Your task to perform on an android device: Open eBay Image 0: 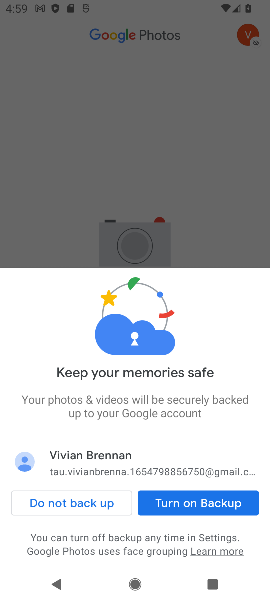
Step 0: press home button
Your task to perform on an android device: Open eBay Image 1: 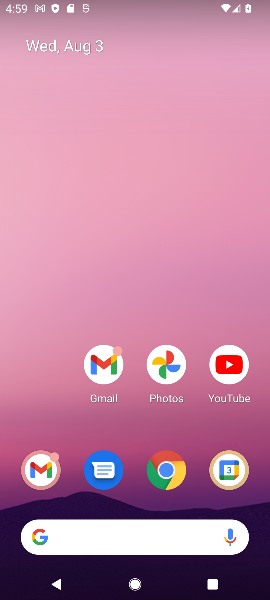
Step 1: drag from (207, 430) to (203, 11)
Your task to perform on an android device: Open eBay Image 2: 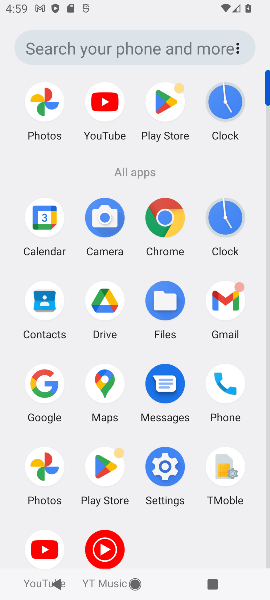
Step 2: click (165, 218)
Your task to perform on an android device: Open eBay Image 3: 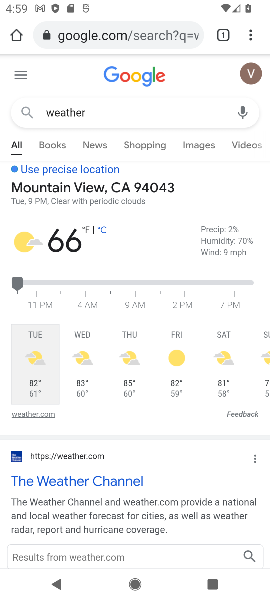
Step 3: click (134, 27)
Your task to perform on an android device: Open eBay Image 4: 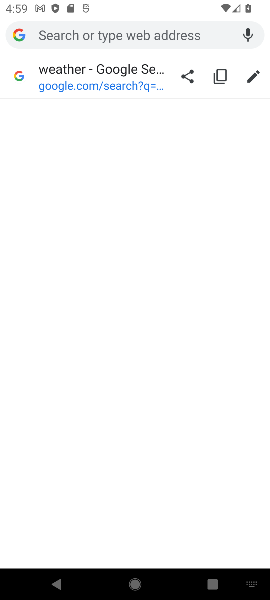
Step 4: type "eBay"
Your task to perform on an android device: Open eBay Image 5: 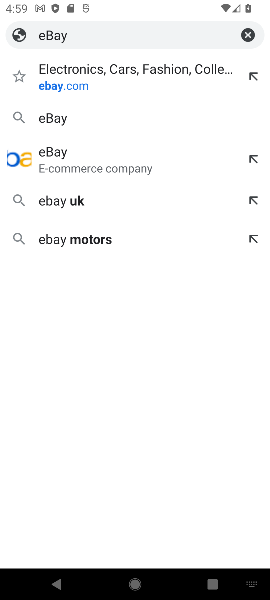
Step 5: click (63, 82)
Your task to perform on an android device: Open eBay Image 6: 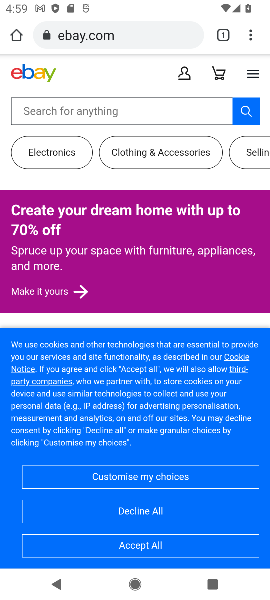
Step 6: task complete